Your task to perform on an android device: Search for vegetarian restaurants on Maps Image 0: 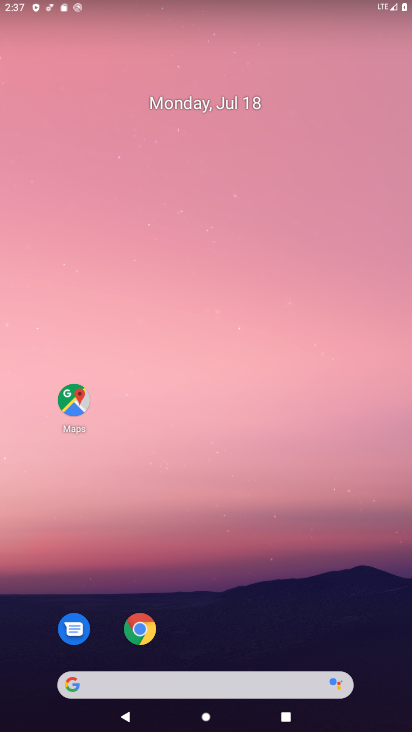
Step 0: click (77, 388)
Your task to perform on an android device: Search for vegetarian restaurants on Maps Image 1: 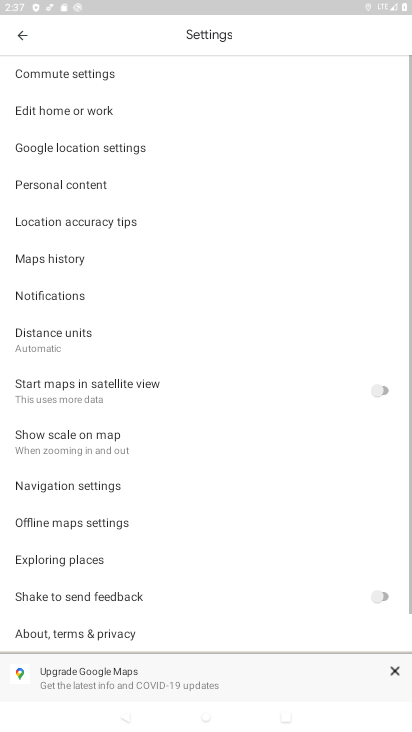
Step 1: click (26, 40)
Your task to perform on an android device: Search for vegetarian restaurants on Maps Image 2: 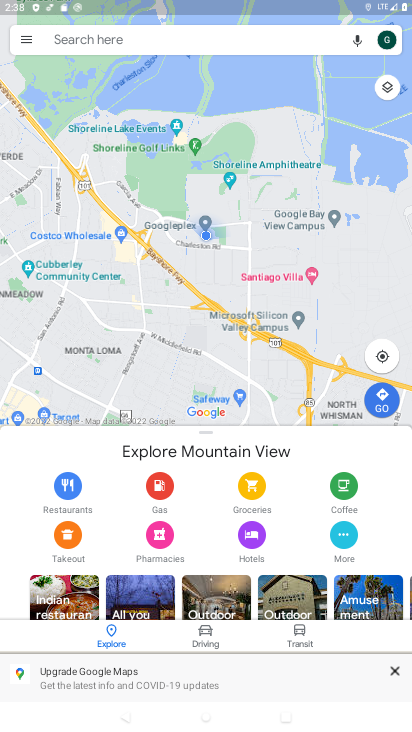
Step 2: click (88, 41)
Your task to perform on an android device: Search for vegetarian restaurants on Maps Image 3: 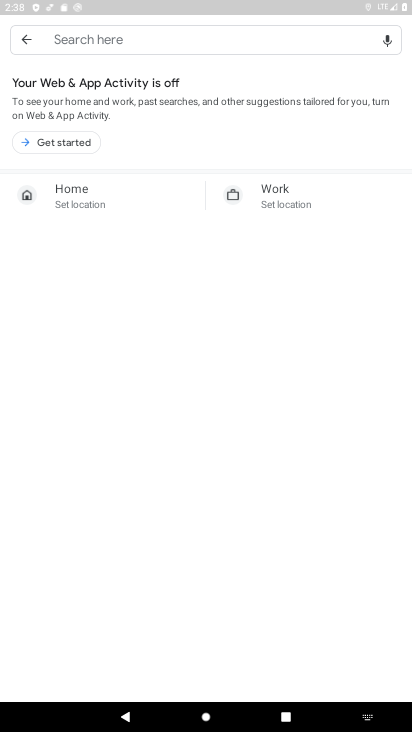
Step 3: type "vegetarian restaurants"
Your task to perform on an android device: Search for vegetarian restaurants on Maps Image 4: 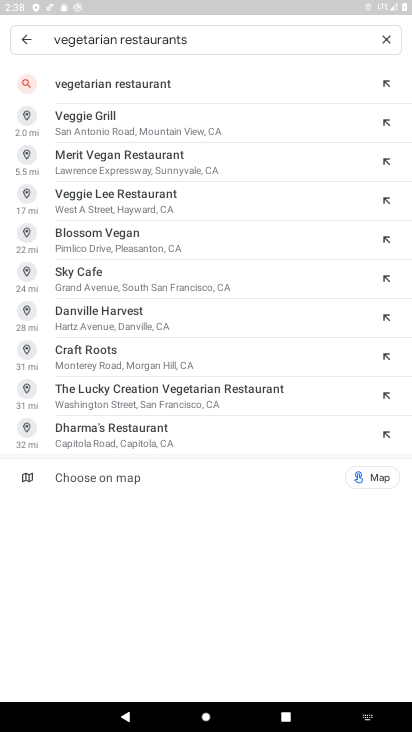
Step 4: click (94, 82)
Your task to perform on an android device: Search for vegetarian restaurants on Maps Image 5: 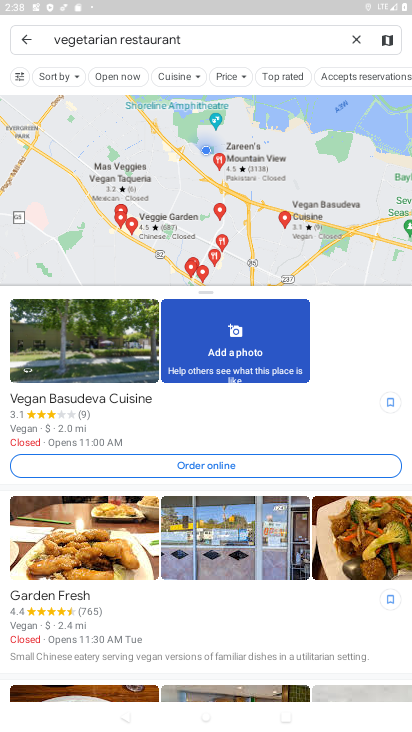
Step 5: task complete